Your task to perform on an android device: Open the calendar app, open the side menu, and click the "Day" option Image 0: 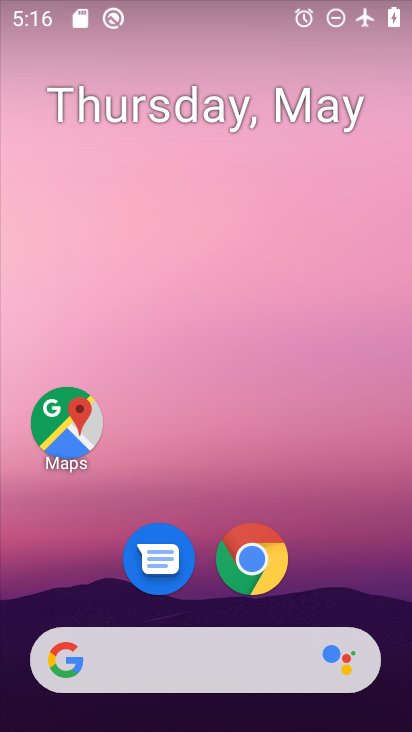
Step 0: drag from (339, 524) to (233, 0)
Your task to perform on an android device: Open the calendar app, open the side menu, and click the "Day" option Image 1: 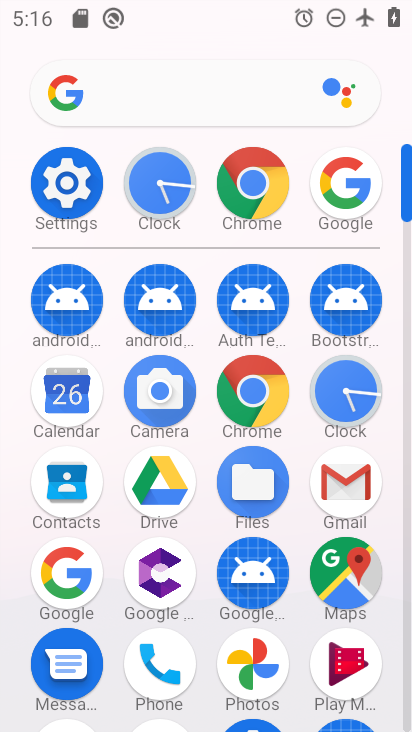
Step 1: click (75, 397)
Your task to perform on an android device: Open the calendar app, open the side menu, and click the "Day" option Image 2: 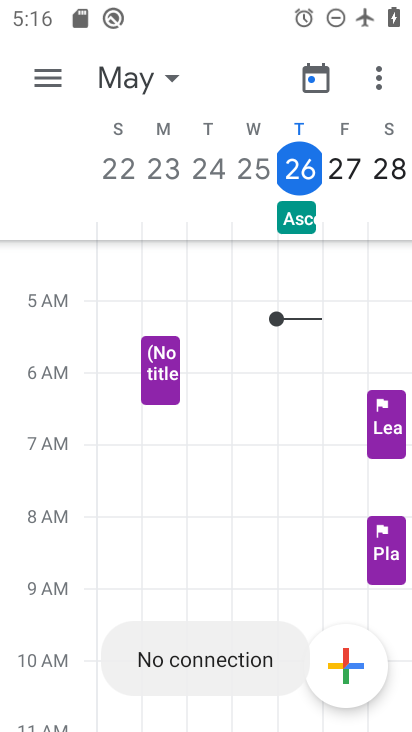
Step 2: click (44, 84)
Your task to perform on an android device: Open the calendar app, open the side menu, and click the "Day" option Image 3: 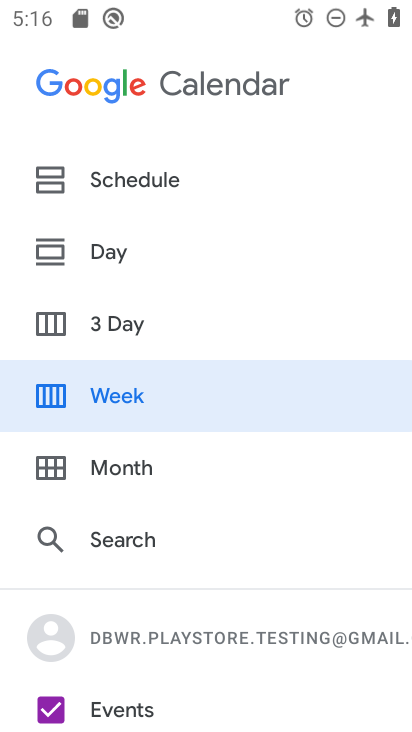
Step 3: click (132, 255)
Your task to perform on an android device: Open the calendar app, open the side menu, and click the "Day" option Image 4: 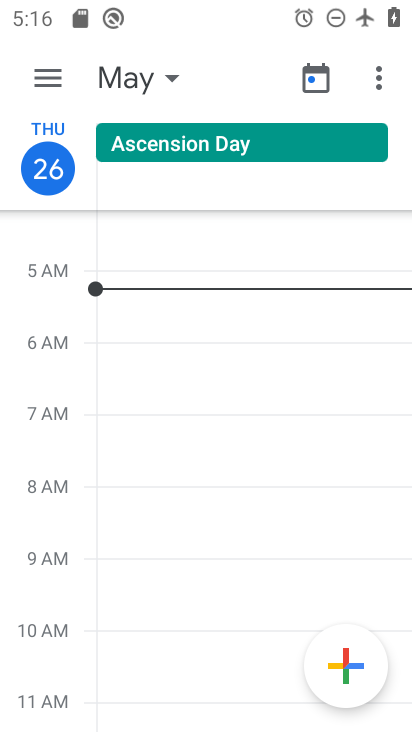
Step 4: task complete